Your task to perform on an android device: turn on bluetooth scan Image 0: 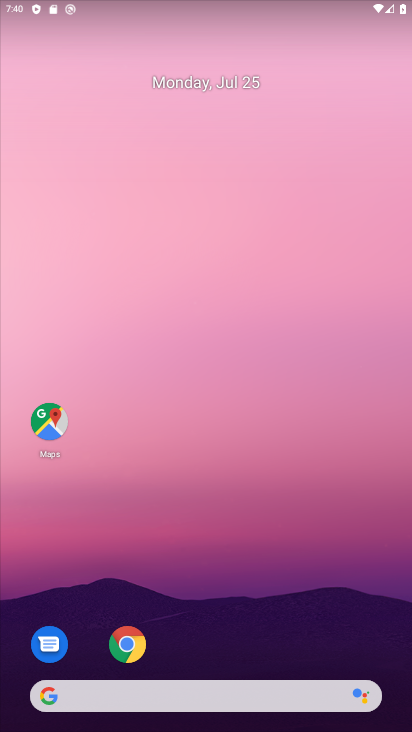
Step 0: drag from (188, 558) to (188, 15)
Your task to perform on an android device: turn on bluetooth scan Image 1: 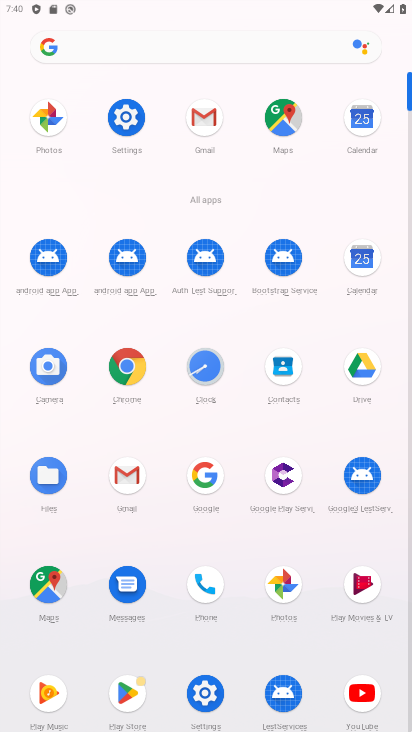
Step 1: click (122, 118)
Your task to perform on an android device: turn on bluetooth scan Image 2: 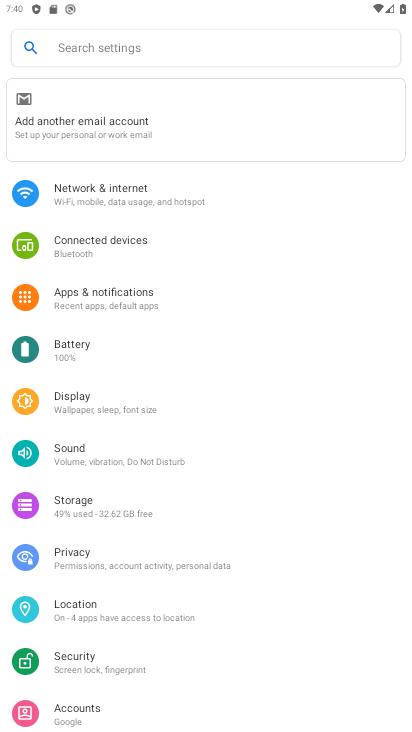
Step 2: click (82, 622)
Your task to perform on an android device: turn on bluetooth scan Image 3: 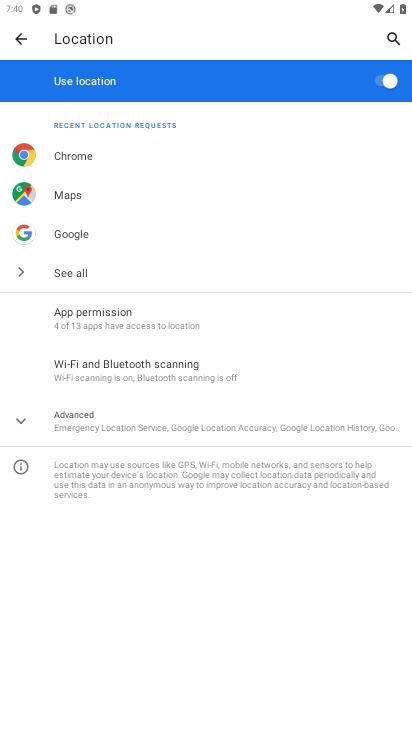
Step 3: click (87, 367)
Your task to perform on an android device: turn on bluetooth scan Image 4: 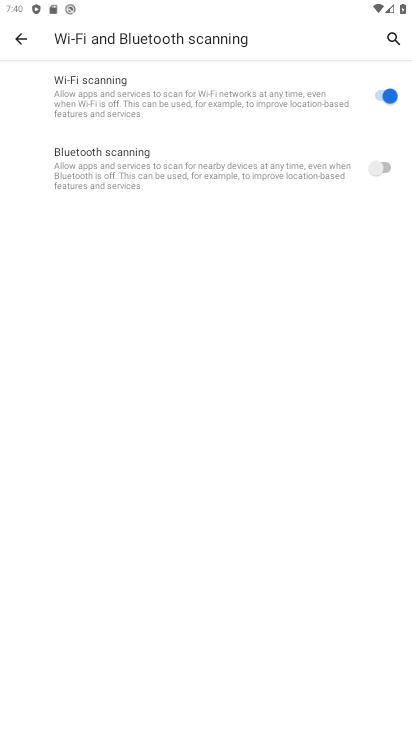
Step 4: click (392, 166)
Your task to perform on an android device: turn on bluetooth scan Image 5: 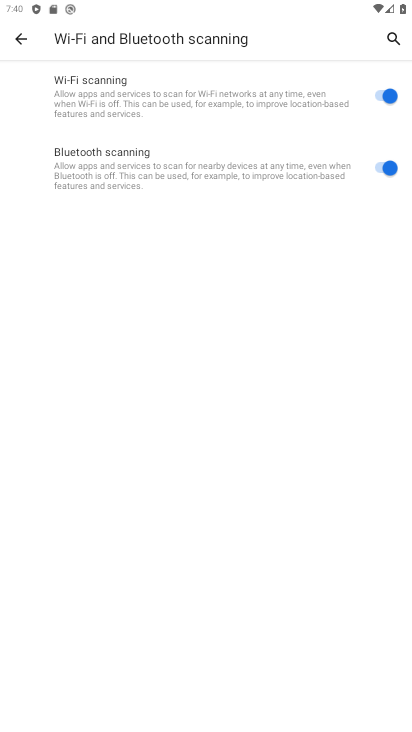
Step 5: task complete